Your task to perform on an android device: turn on notifications settings in the gmail app Image 0: 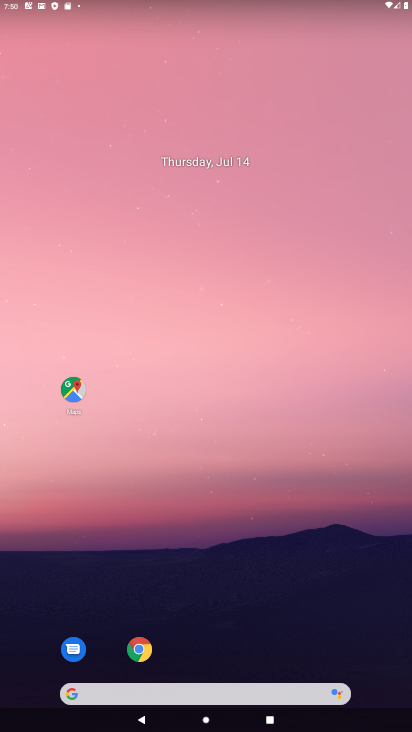
Step 0: drag from (213, 654) to (223, 3)
Your task to perform on an android device: turn on notifications settings in the gmail app Image 1: 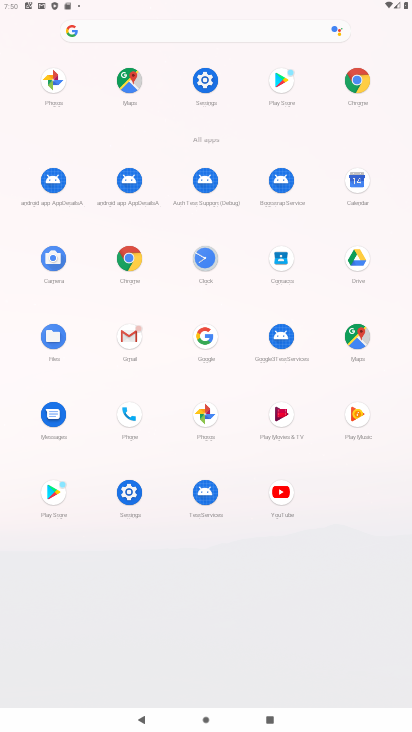
Step 1: click (129, 332)
Your task to perform on an android device: turn on notifications settings in the gmail app Image 2: 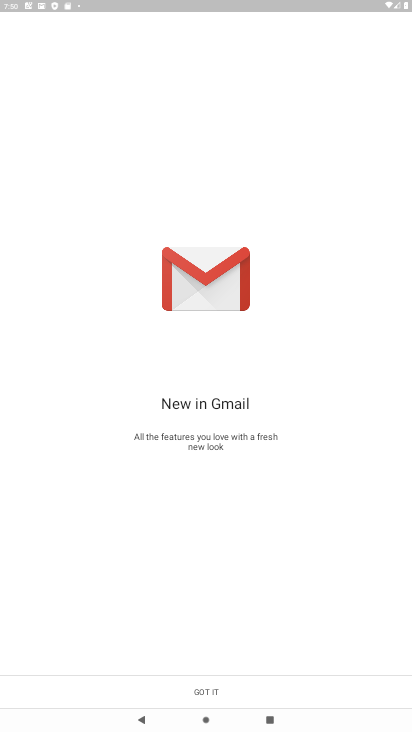
Step 2: click (210, 689)
Your task to perform on an android device: turn on notifications settings in the gmail app Image 3: 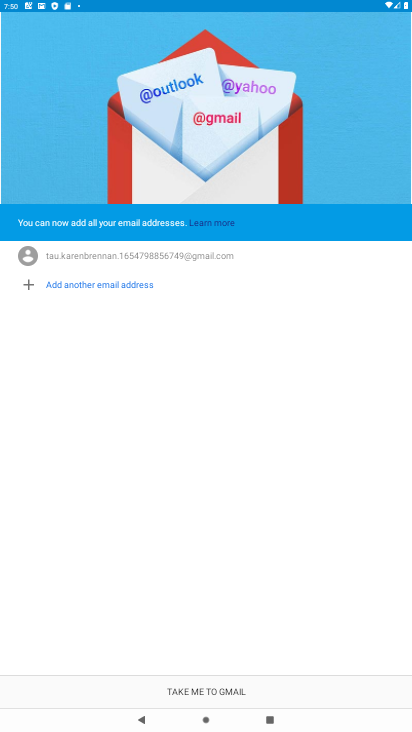
Step 3: click (204, 681)
Your task to perform on an android device: turn on notifications settings in the gmail app Image 4: 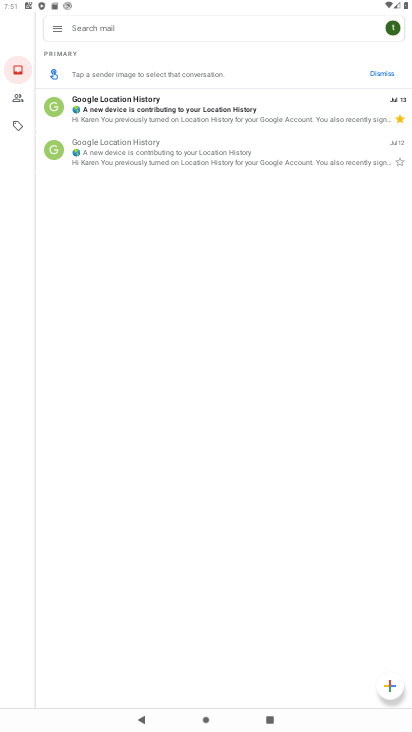
Step 4: click (57, 30)
Your task to perform on an android device: turn on notifications settings in the gmail app Image 5: 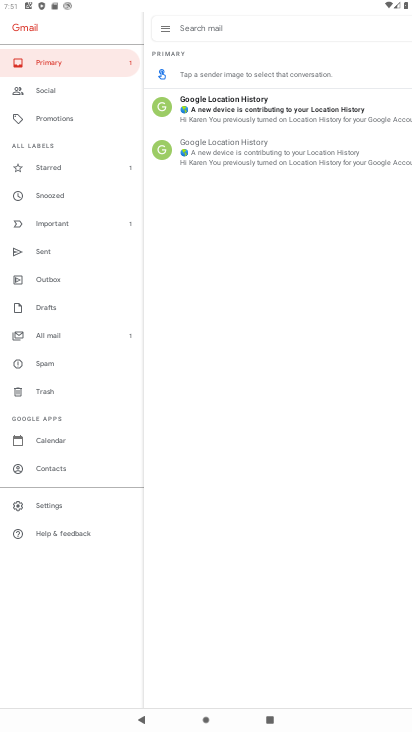
Step 5: click (63, 503)
Your task to perform on an android device: turn on notifications settings in the gmail app Image 6: 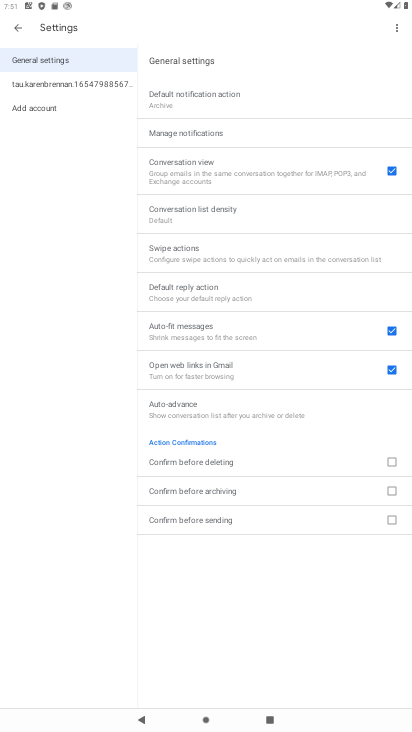
Step 6: click (211, 137)
Your task to perform on an android device: turn on notifications settings in the gmail app Image 7: 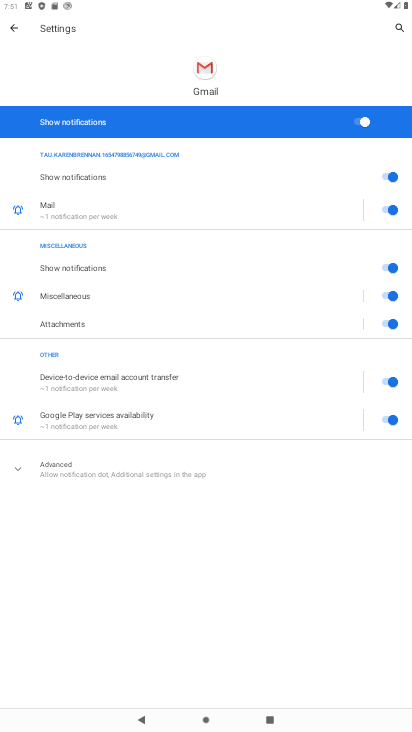
Step 7: task complete